Your task to perform on an android device: Turn on the flashlight Image 0: 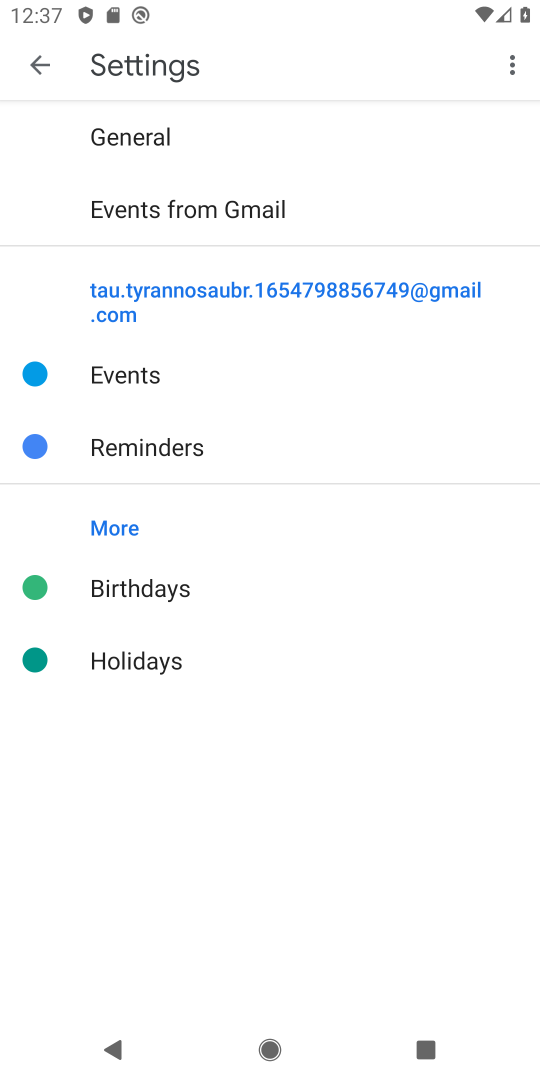
Step 0: press home button
Your task to perform on an android device: Turn on the flashlight Image 1: 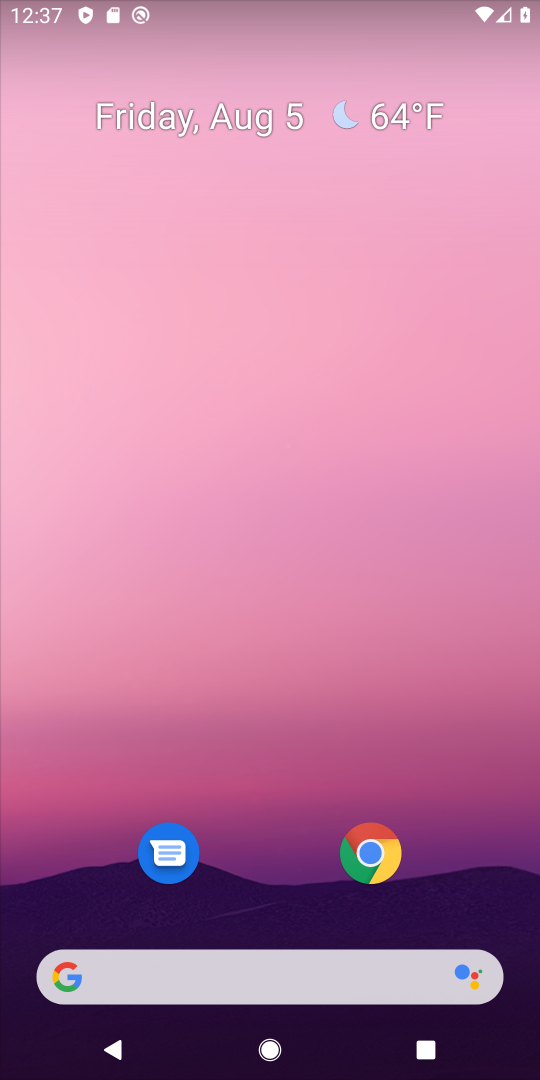
Step 1: drag from (255, 856) to (256, 335)
Your task to perform on an android device: Turn on the flashlight Image 2: 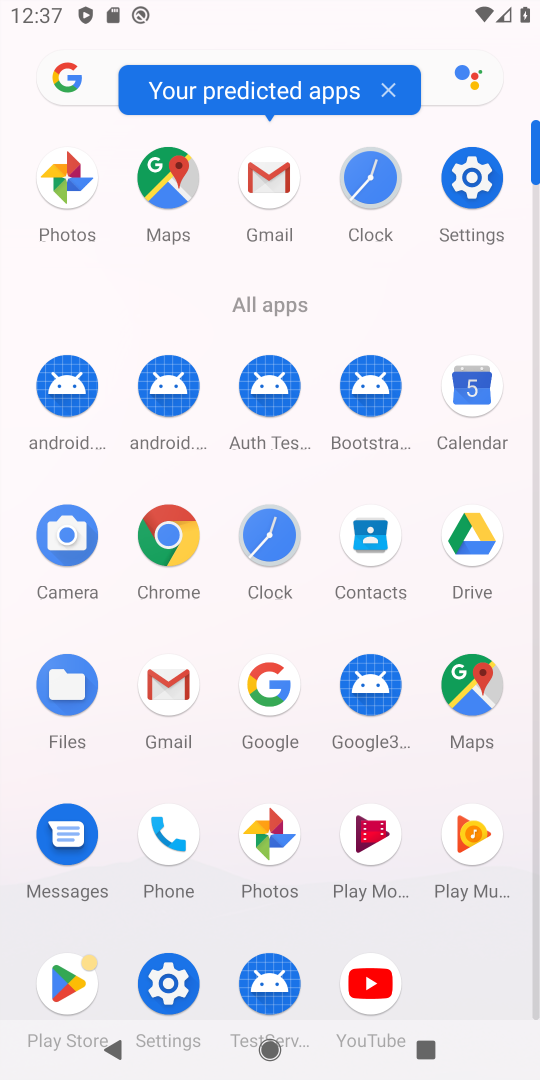
Step 2: click (163, 969)
Your task to perform on an android device: Turn on the flashlight Image 3: 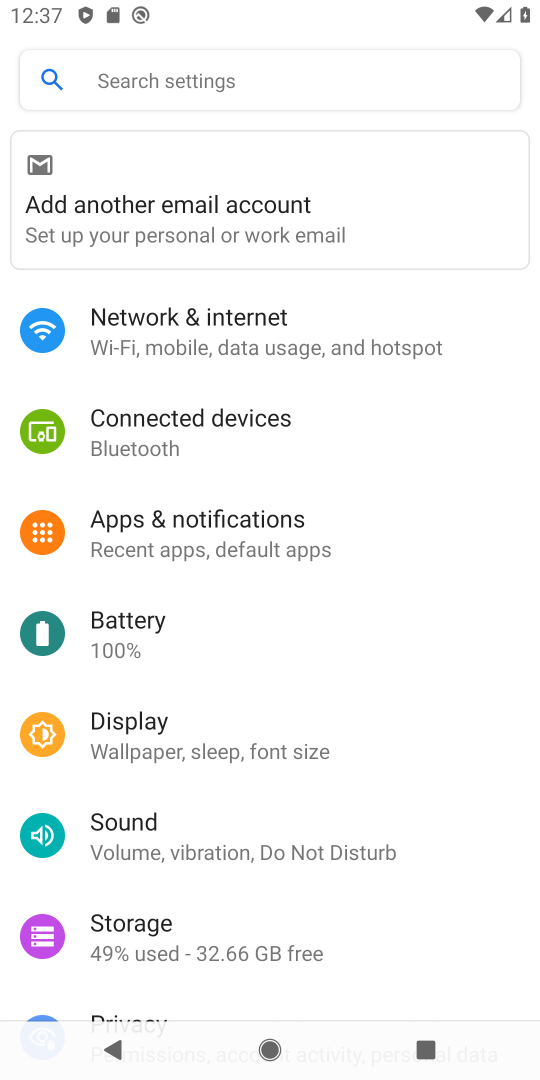
Step 3: task complete